Your task to perform on an android device: Open the web browser Image 0: 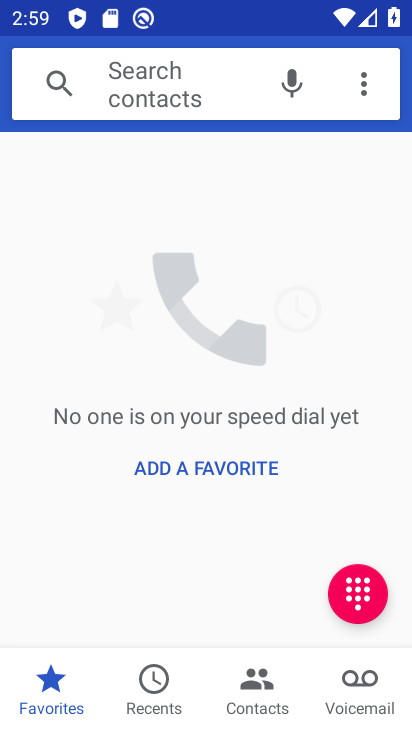
Step 0: drag from (98, 557) to (281, 70)
Your task to perform on an android device: Open the web browser Image 1: 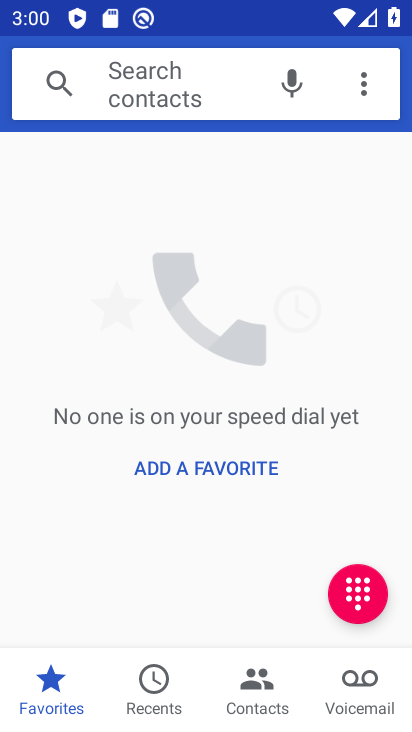
Step 1: press back button
Your task to perform on an android device: Open the web browser Image 2: 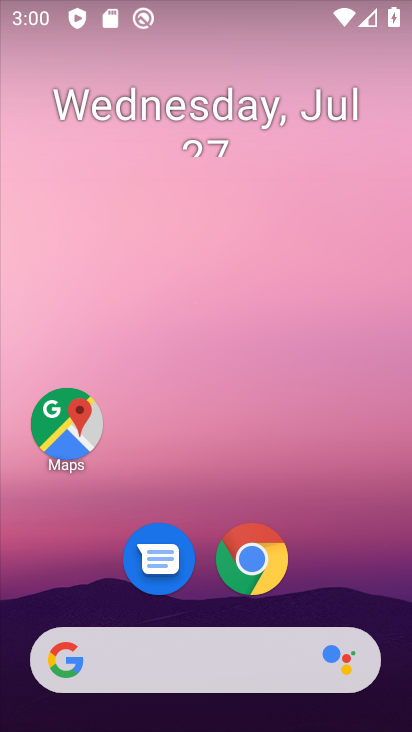
Step 2: drag from (59, 594) to (240, 97)
Your task to perform on an android device: Open the web browser Image 3: 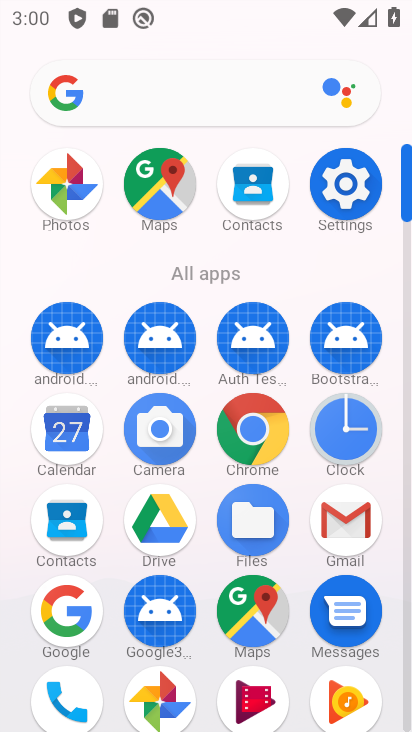
Step 3: click (245, 465)
Your task to perform on an android device: Open the web browser Image 4: 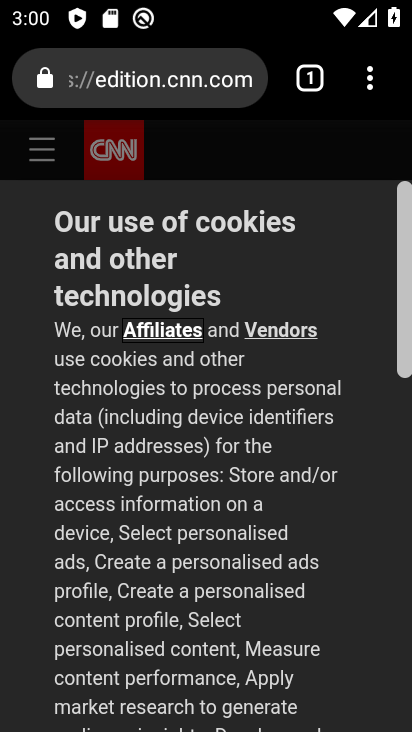
Step 4: task complete